Your task to perform on an android device: Open battery settings Image 0: 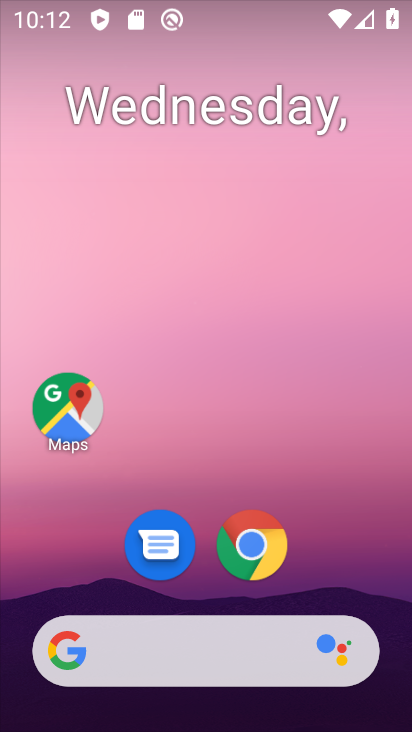
Step 0: drag from (206, 591) to (243, 174)
Your task to perform on an android device: Open battery settings Image 1: 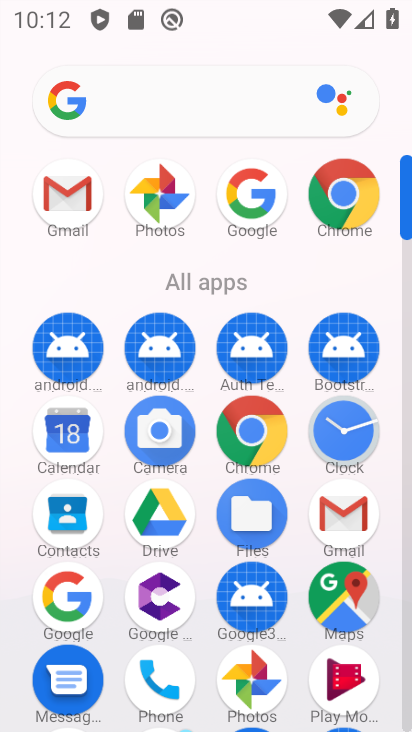
Step 1: drag from (117, 574) to (176, 318)
Your task to perform on an android device: Open battery settings Image 2: 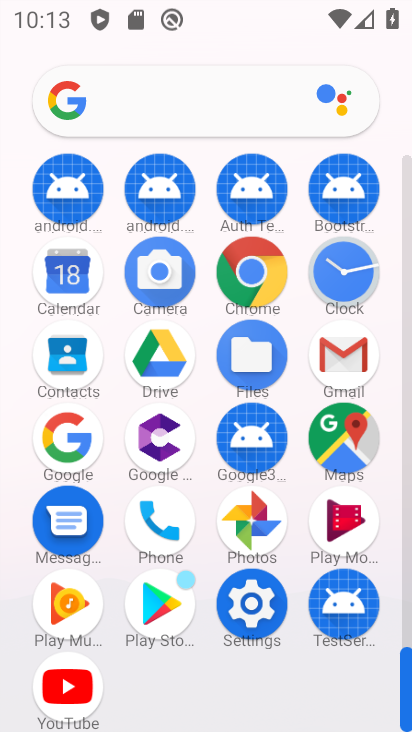
Step 2: click (230, 593)
Your task to perform on an android device: Open battery settings Image 3: 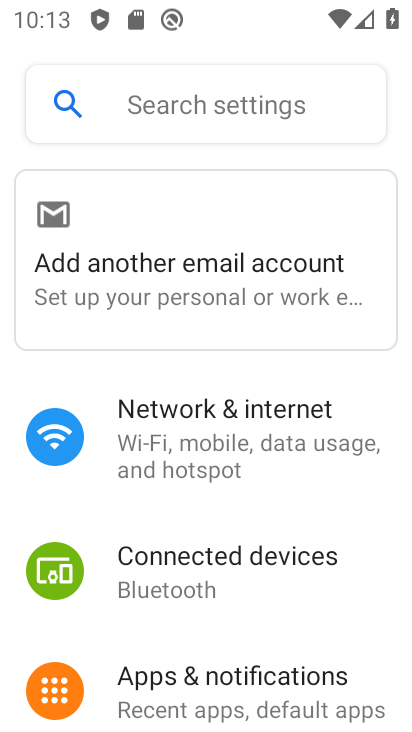
Step 3: drag from (276, 580) to (283, 386)
Your task to perform on an android device: Open battery settings Image 4: 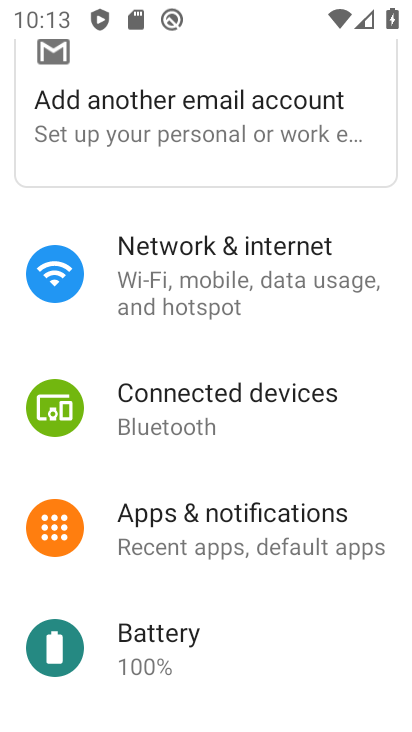
Step 4: click (217, 645)
Your task to perform on an android device: Open battery settings Image 5: 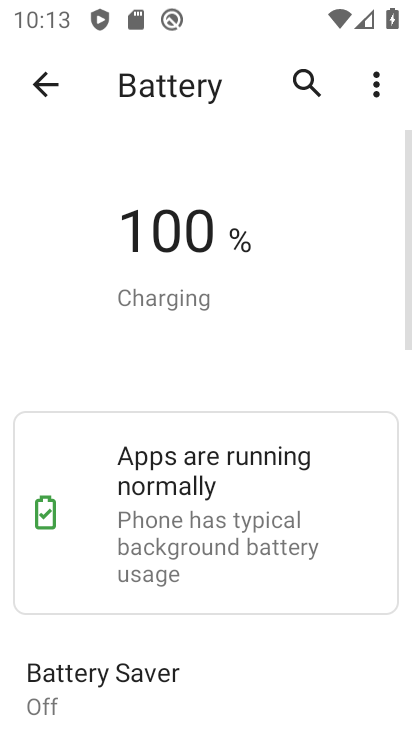
Step 5: task complete